Your task to perform on an android device: Go to Yahoo.com Image 0: 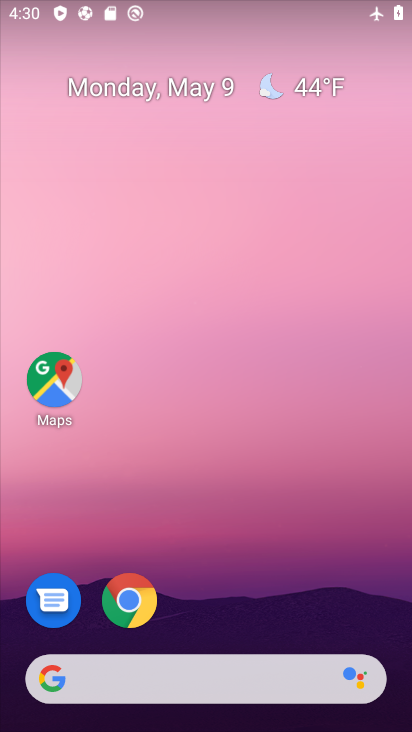
Step 0: click (243, 670)
Your task to perform on an android device: Go to Yahoo.com Image 1: 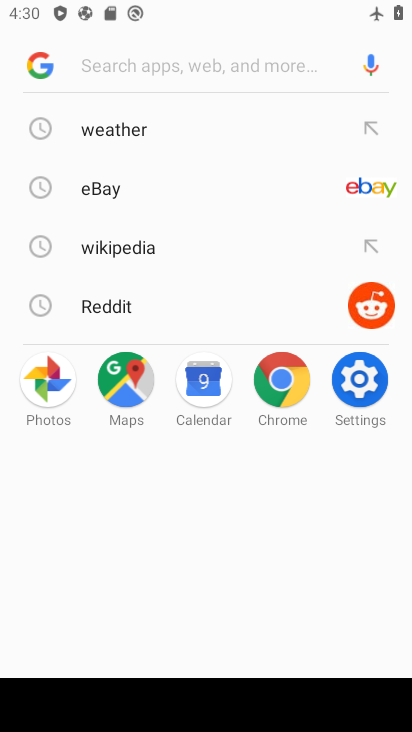
Step 1: type "yahoo.com"
Your task to perform on an android device: Go to Yahoo.com Image 2: 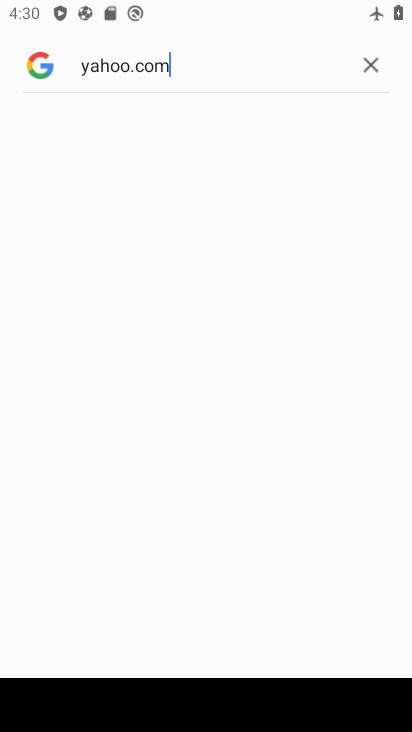
Step 2: task complete